Your task to perform on an android device: turn on location history Image 0: 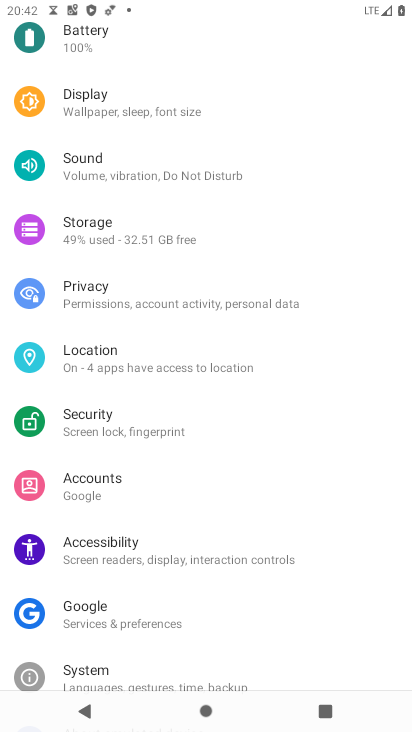
Step 0: press home button
Your task to perform on an android device: turn on location history Image 1: 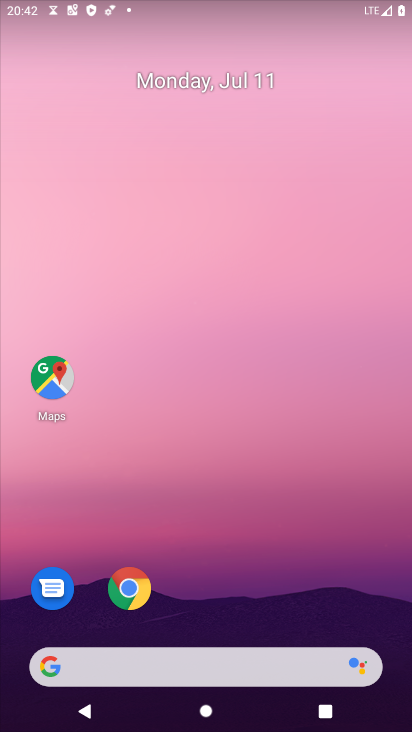
Step 1: drag from (217, 633) to (197, 5)
Your task to perform on an android device: turn on location history Image 2: 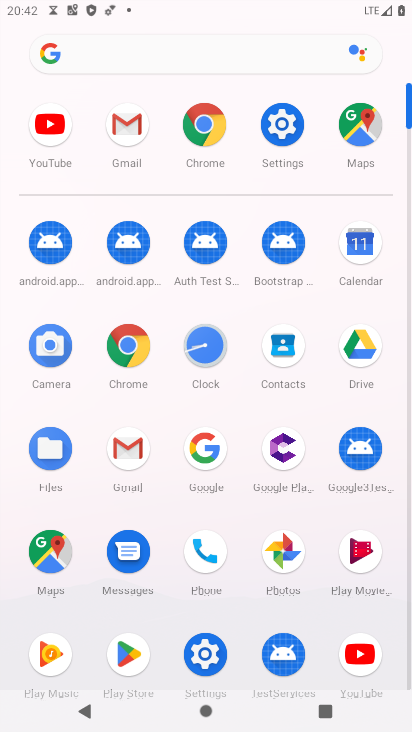
Step 2: click (277, 131)
Your task to perform on an android device: turn on location history Image 3: 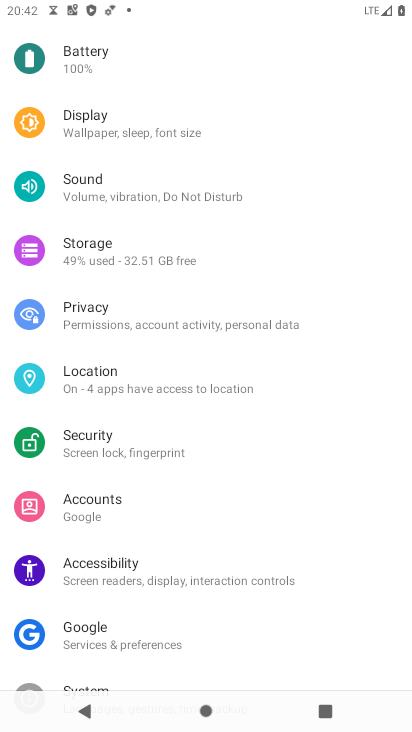
Step 3: click (100, 387)
Your task to perform on an android device: turn on location history Image 4: 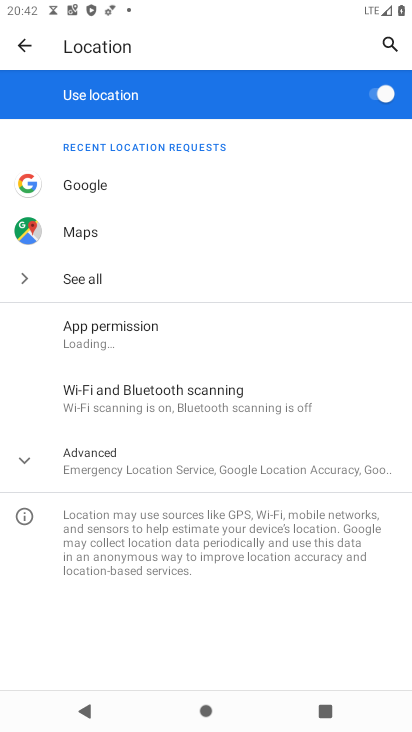
Step 4: click (91, 467)
Your task to perform on an android device: turn on location history Image 5: 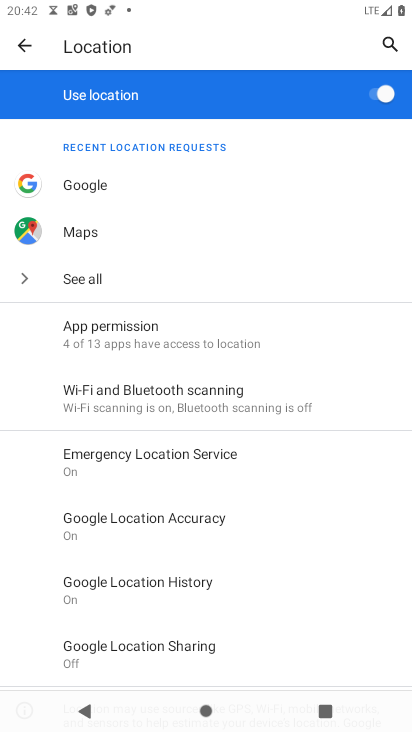
Step 5: click (155, 578)
Your task to perform on an android device: turn on location history Image 6: 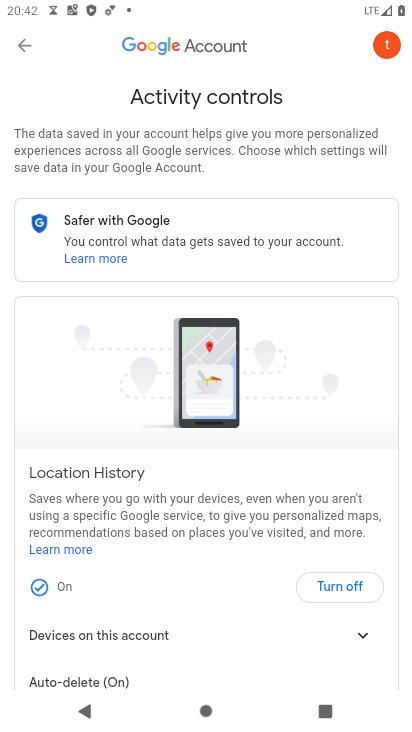
Step 6: task complete